Your task to perform on an android device: Open Reddit.com Image 0: 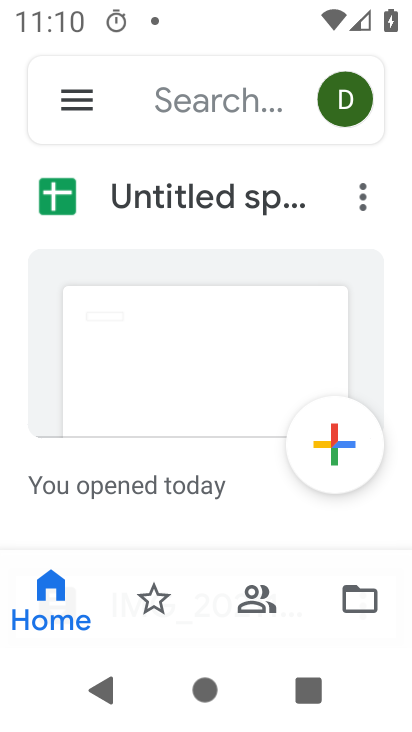
Step 0: press home button
Your task to perform on an android device: Open Reddit.com Image 1: 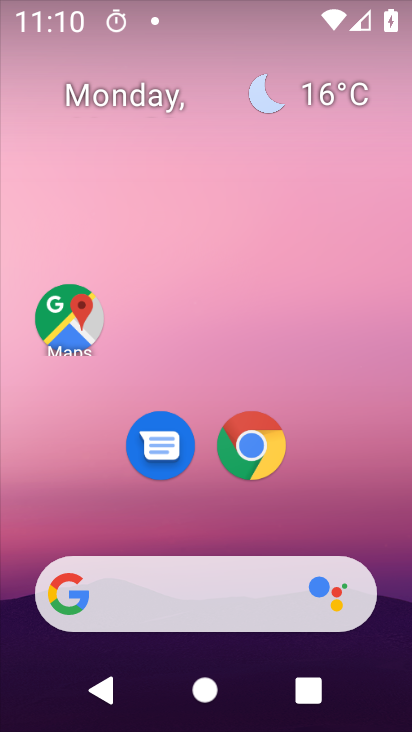
Step 1: click (245, 439)
Your task to perform on an android device: Open Reddit.com Image 2: 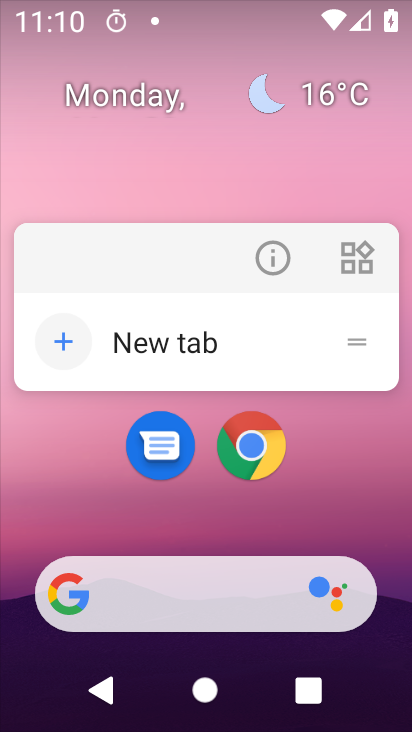
Step 2: click (265, 444)
Your task to perform on an android device: Open Reddit.com Image 3: 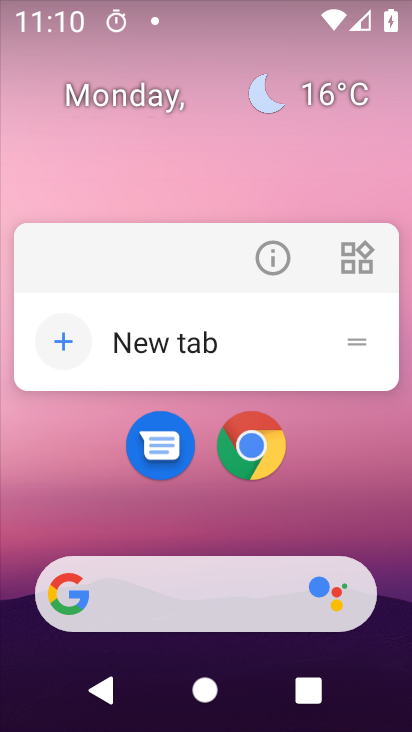
Step 3: click (265, 444)
Your task to perform on an android device: Open Reddit.com Image 4: 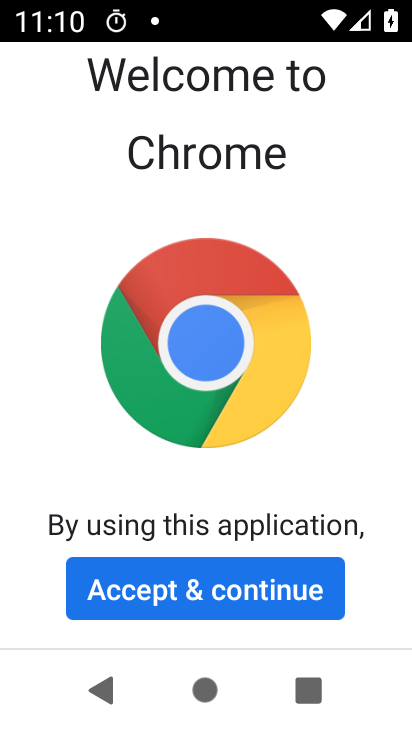
Step 4: click (231, 592)
Your task to perform on an android device: Open Reddit.com Image 5: 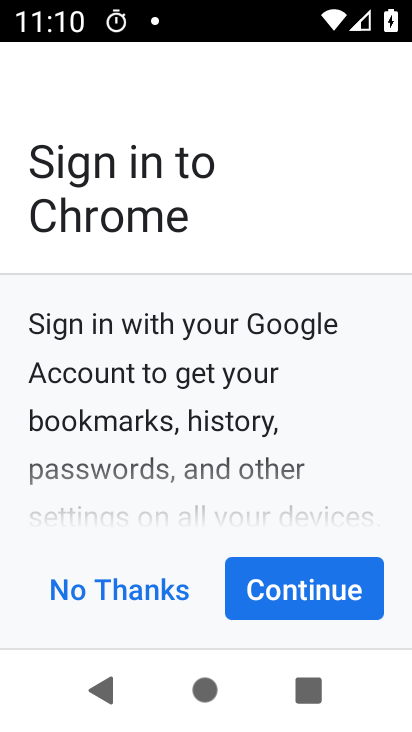
Step 5: click (261, 588)
Your task to perform on an android device: Open Reddit.com Image 6: 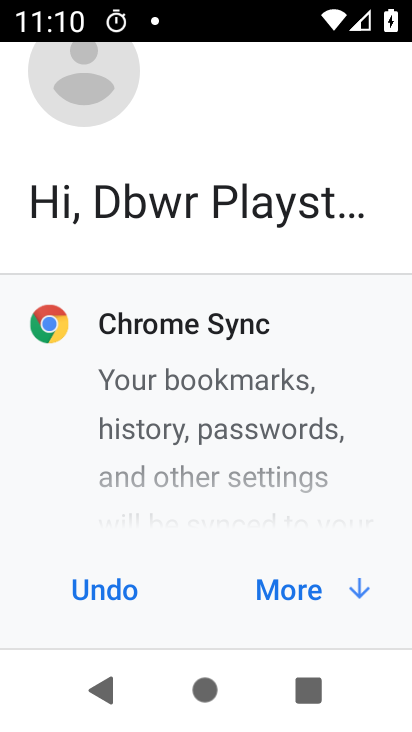
Step 6: click (261, 589)
Your task to perform on an android device: Open Reddit.com Image 7: 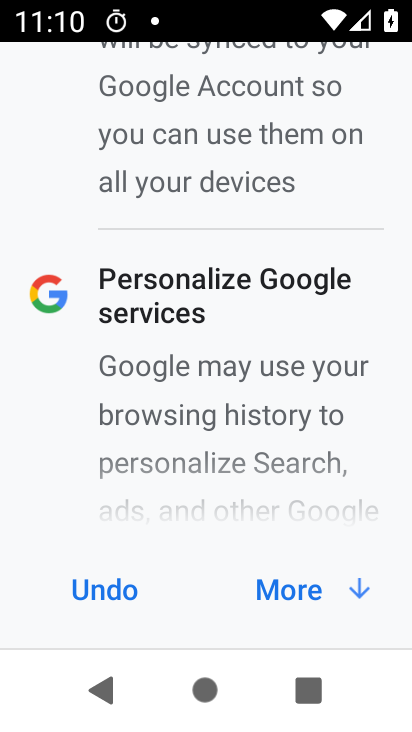
Step 7: click (335, 595)
Your task to perform on an android device: Open Reddit.com Image 8: 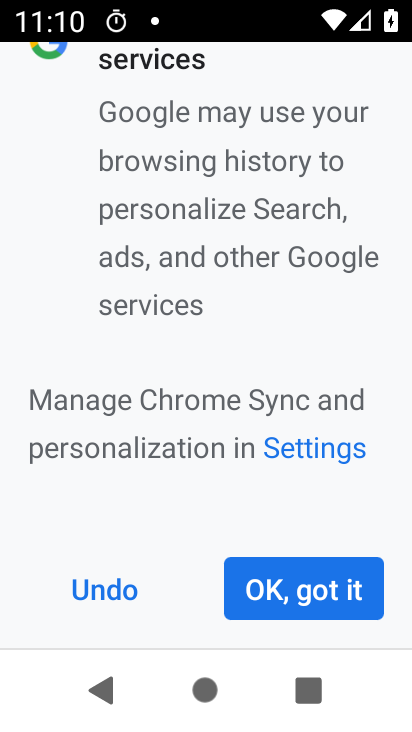
Step 8: click (336, 600)
Your task to perform on an android device: Open Reddit.com Image 9: 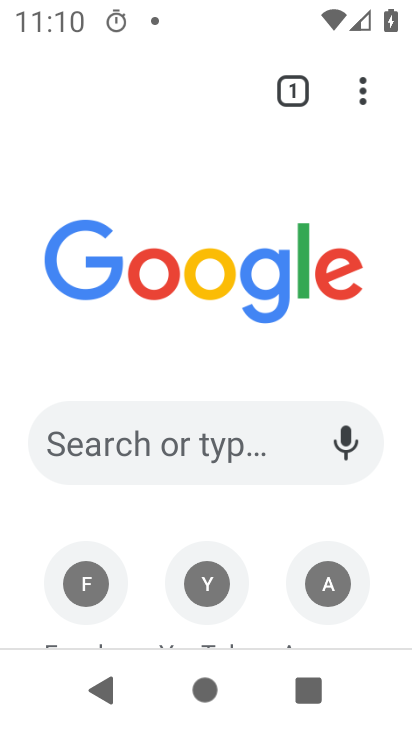
Step 9: drag from (232, 494) to (245, 379)
Your task to perform on an android device: Open Reddit.com Image 10: 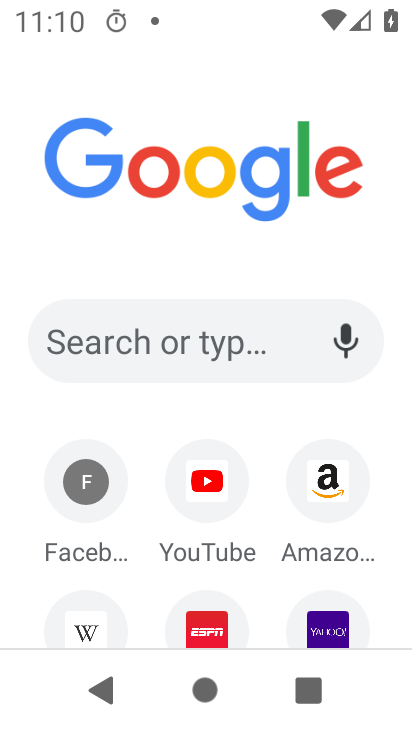
Step 10: click (180, 331)
Your task to perform on an android device: Open Reddit.com Image 11: 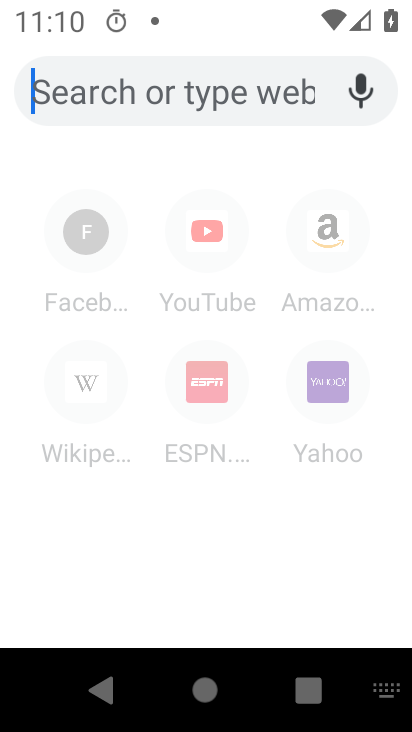
Step 11: type "Reddit.com"
Your task to perform on an android device: Open Reddit.com Image 12: 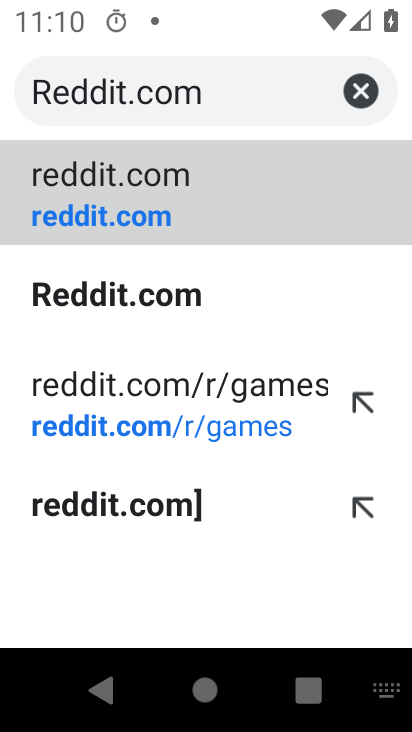
Step 12: click (119, 223)
Your task to perform on an android device: Open Reddit.com Image 13: 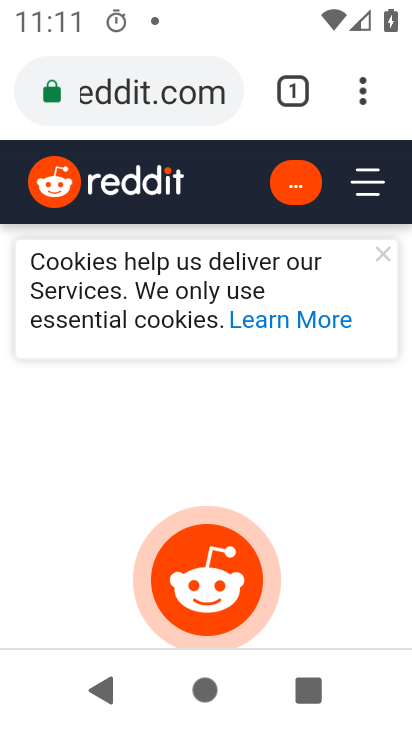
Step 13: task complete